Your task to perform on an android device: Go to display settings Image 0: 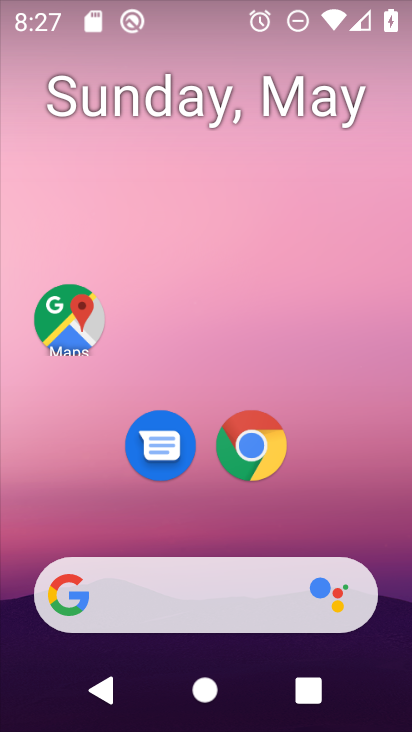
Step 0: drag from (242, 550) to (297, 129)
Your task to perform on an android device: Go to display settings Image 1: 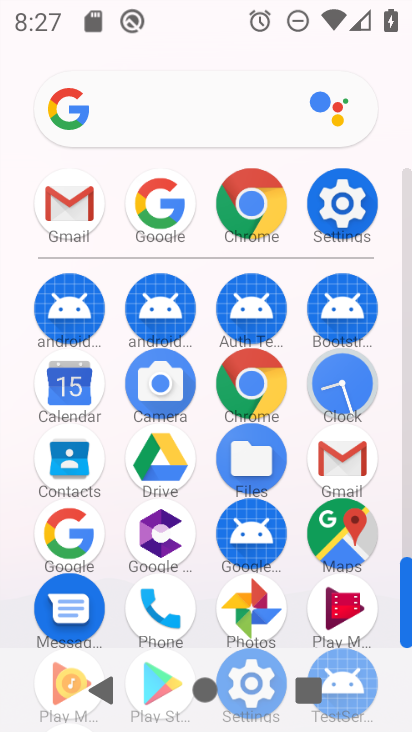
Step 1: click (358, 224)
Your task to perform on an android device: Go to display settings Image 2: 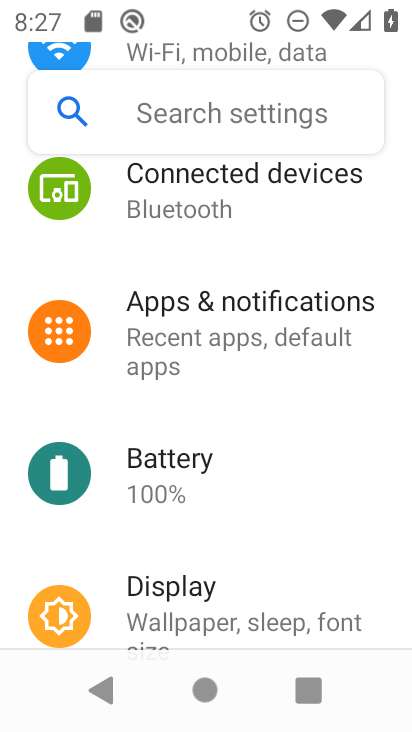
Step 2: drag from (241, 341) to (182, 689)
Your task to perform on an android device: Go to display settings Image 3: 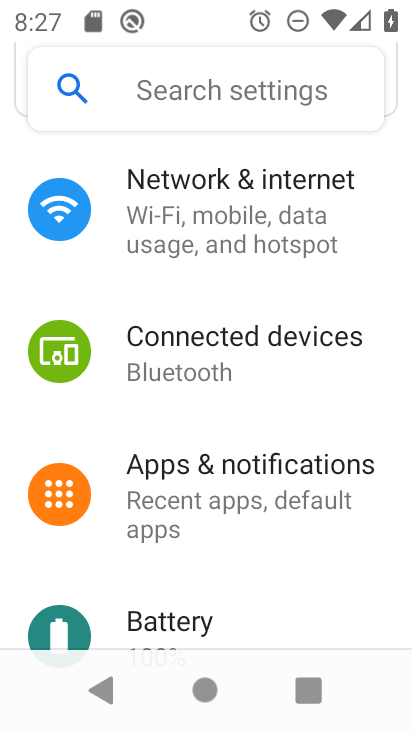
Step 3: drag from (253, 444) to (226, 609)
Your task to perform on an android device: Go to display settings Image 4: 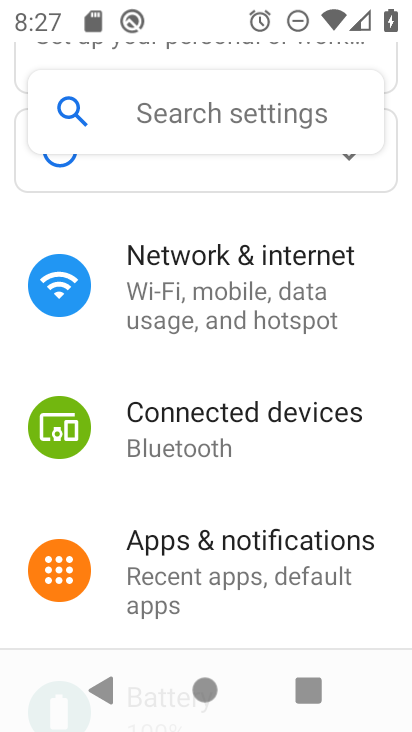
Step 4: drag from (283, 212) to (232, 581)
Your task to perform on an android device: Go to display settings Image 5: 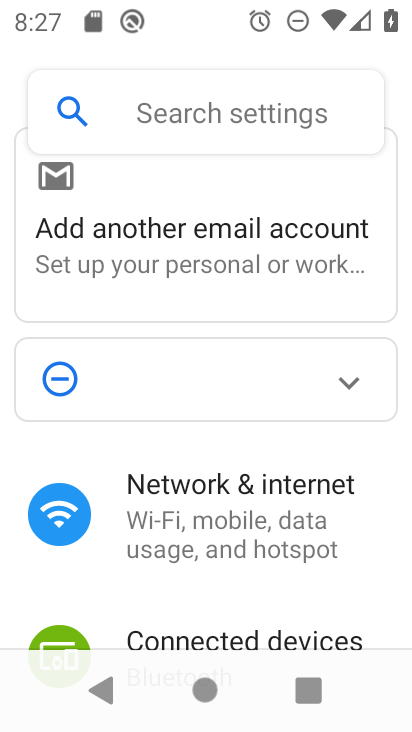
Step 5: drag from (243, 457) to (315, 44)
Your task to perform on an android device: Go to display settings Image 6: 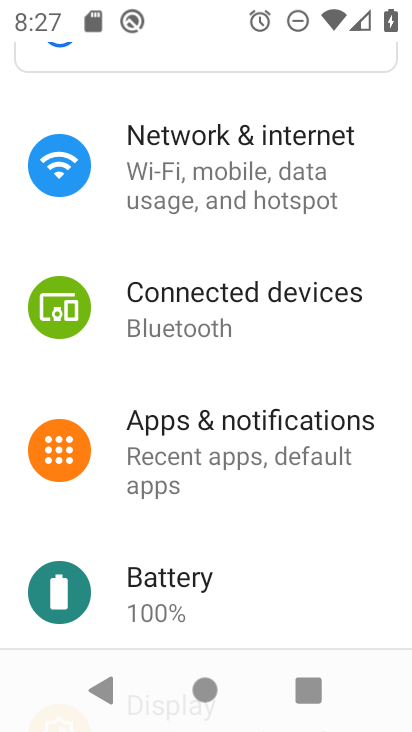
Step 6: drag from (247, 430) to (299, 142)
Your task to perform on an android device: Go to display settings Image 7: 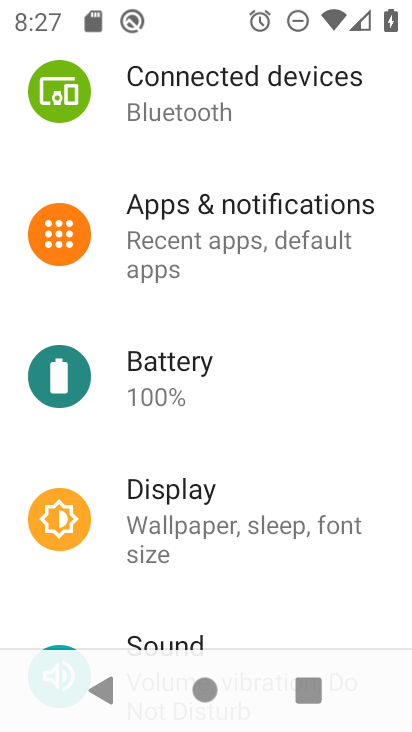
Step 7: drag from (230, 472) to (249, 343)
Your task to perform on an android device: Go to display settings Image 8: 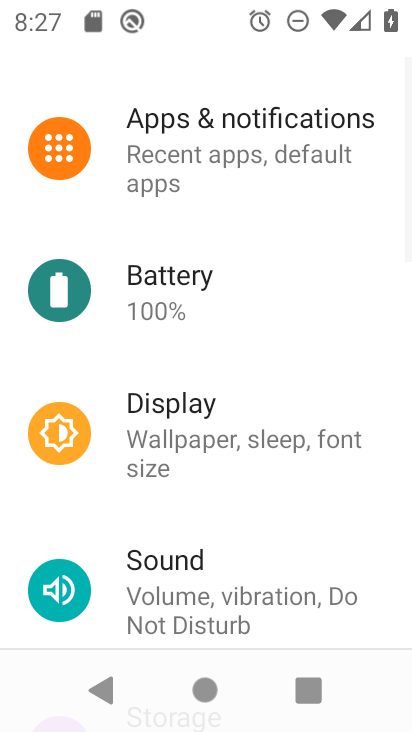
Step 8: click (223, 415)
Your task to perform on an android device: Go to display settings Image 9: 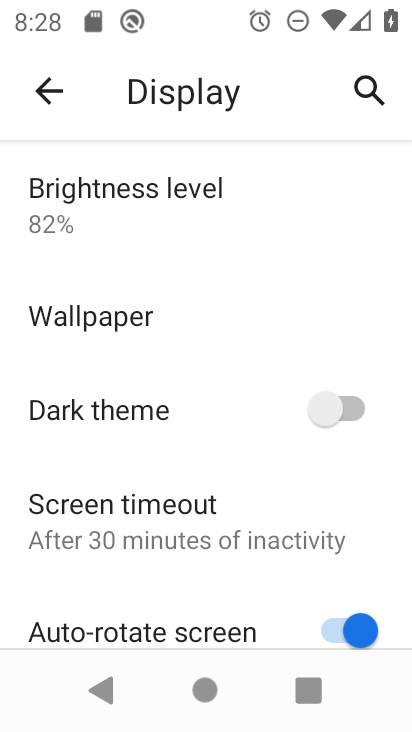
Step 9: task complete